Your task to perform on an android device: turn off improve location accuracy Image 0: 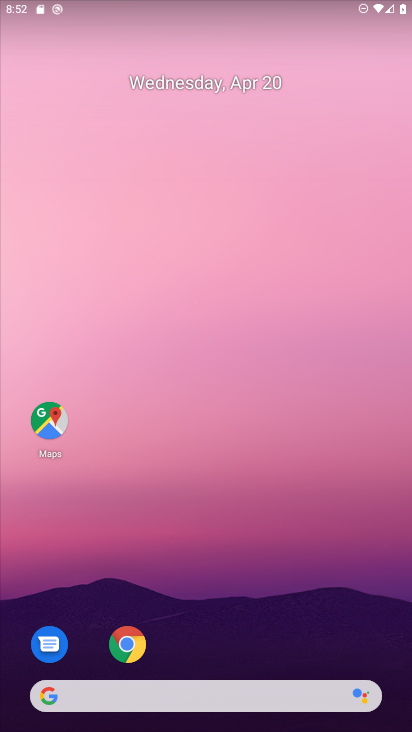
Step 0: drag from (317, 625) to (223, 31)
Your task to perform on an android device: turn off improve location accuracy Image 1: 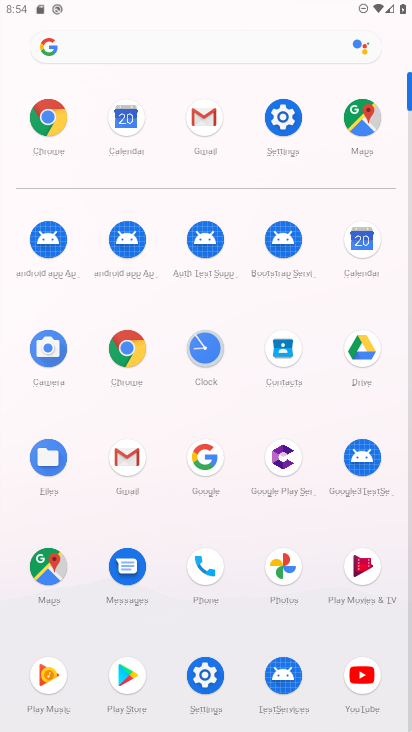
Step 1: click (275, 117)
Your task to perform on an android device: turn off improve location accuracy Image 2: 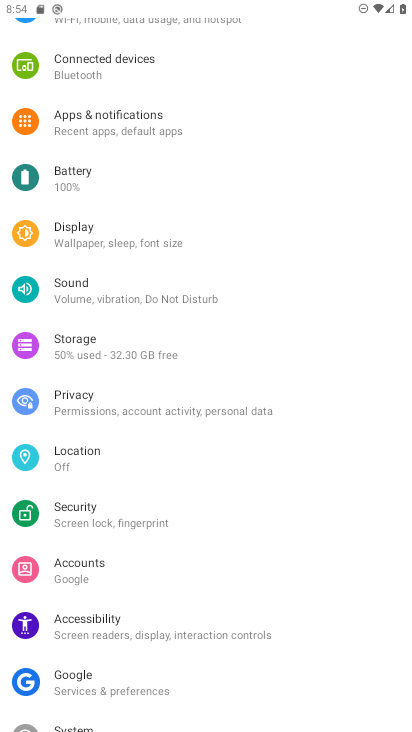
Step 2: click (99, 459)
Your task to perform on an android device: turn off improve location accuracy Image 3: 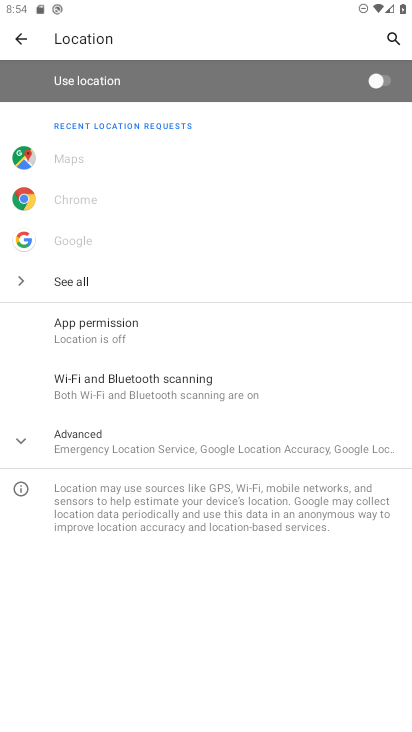
Step 3: click (116, 436)
Your task to perform on an android device: turn off improve location accuracy Image 4: 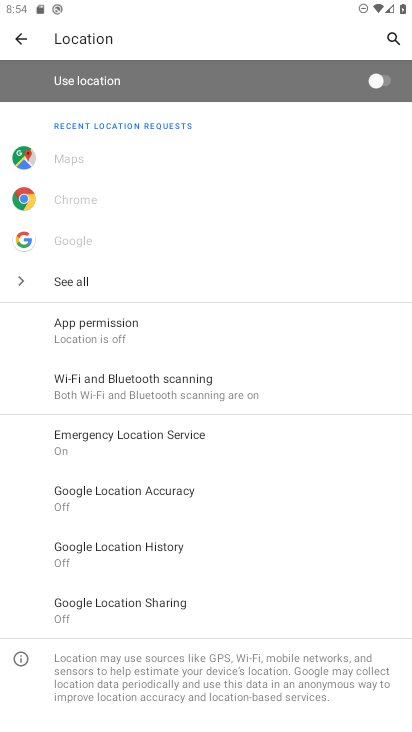
Step 4: click (153, 495)
Your task to perform on an android device: turn off improve location accuracy Image 5: 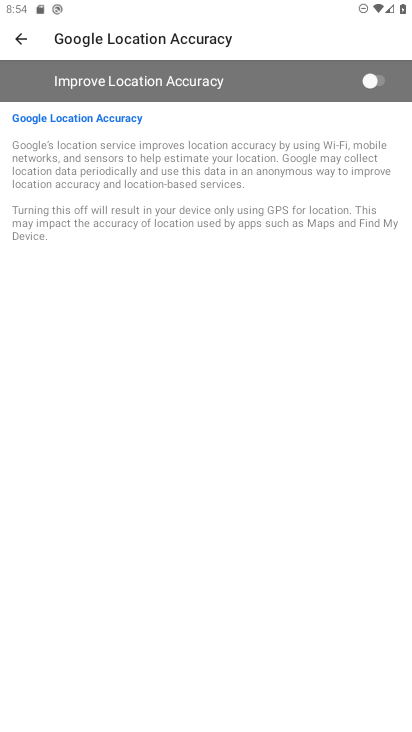
Step 5: task complete